Your task to perform on an android device: Show the shopping cart on costco.com. Search for alienware area 51 on costco.com, select the first entry, and add it to the cart. Image 0: 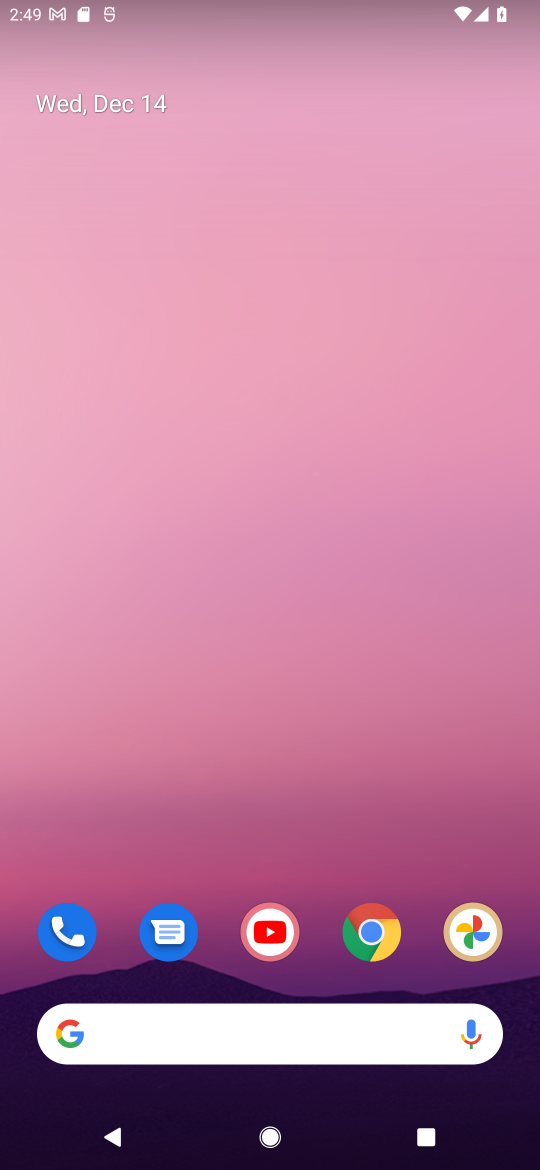
Step 0: click (234, 1052)
Your task to perform on an android device: Show the shopping cart on costco.com. Search for alienware area 51 on costco.com, select the first entry, and add it to the cart. Image 1: 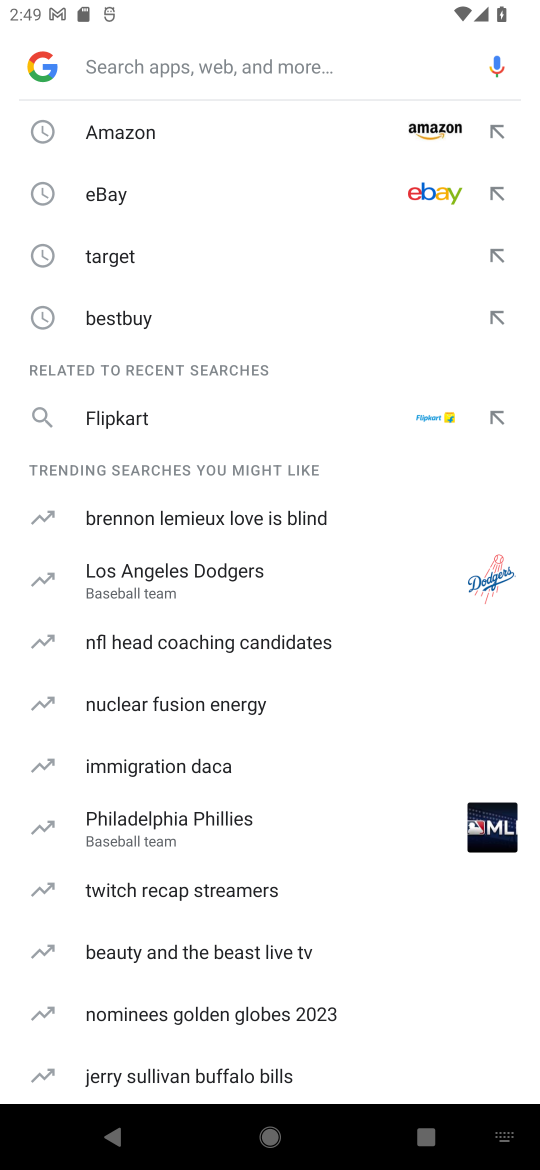
Step 1: type "costco.com"
Your task to perform on an android device: Show the shopping cart on costco.com. Search for alienware area 51 on costco.com, select the first entry, and add it to the cart. Image 2: 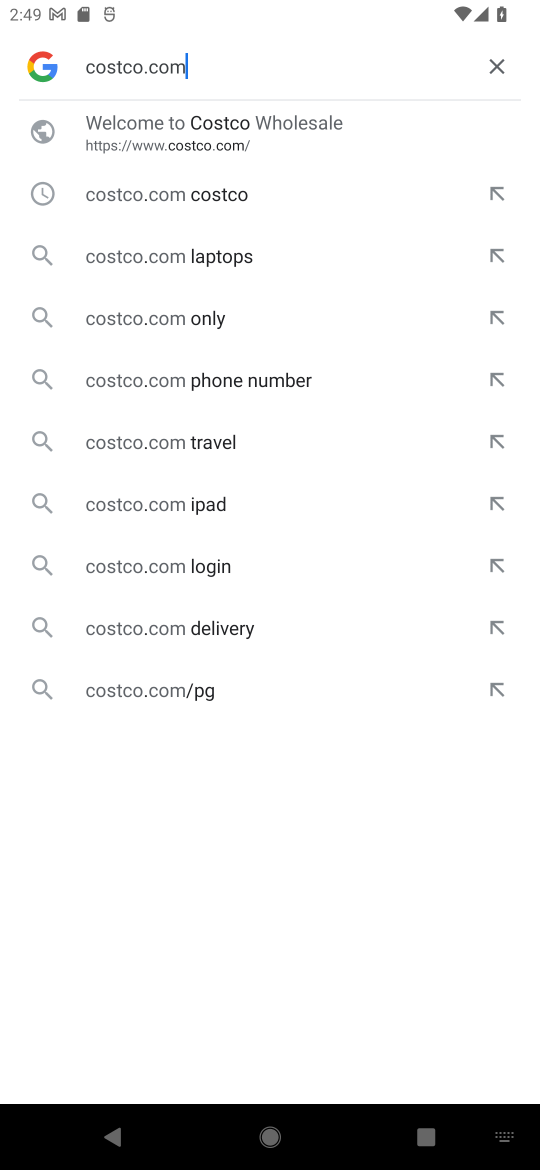
Step 2: click (208, 137)
Your task to perform on an android device: Show the shopping cart on costco.com. Search for alienware area 51 on costco.com, select the first entry, and add it to the cart. Image 3: 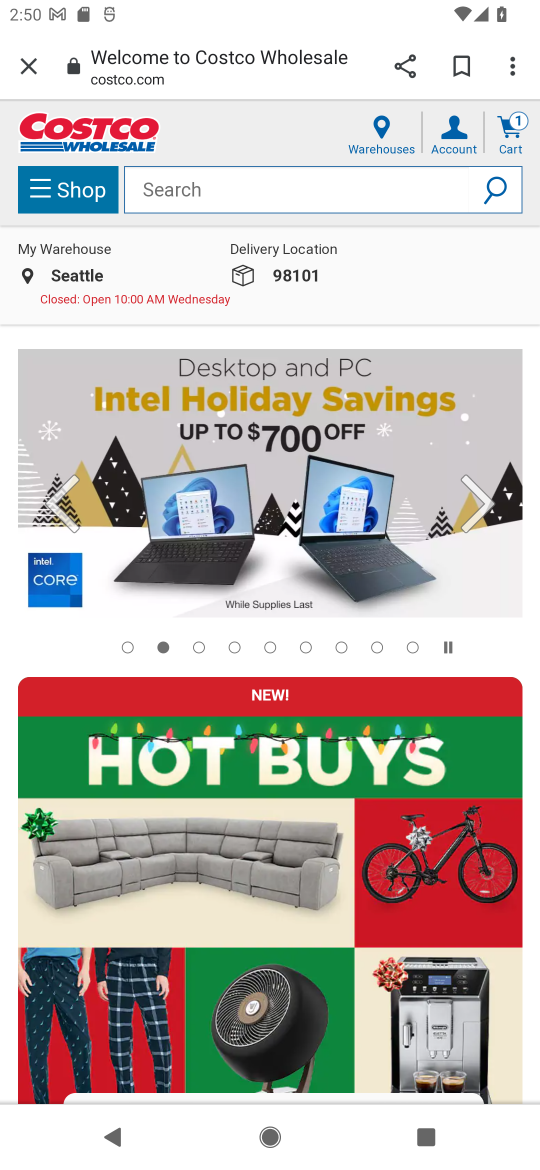
Step 3: click (507, 112)
Your task to perform on an android device: Show the shopping cart on costco.com. Search for alienware area 51 on costco.com, select the first entry, and add it to the cart. Image 4: 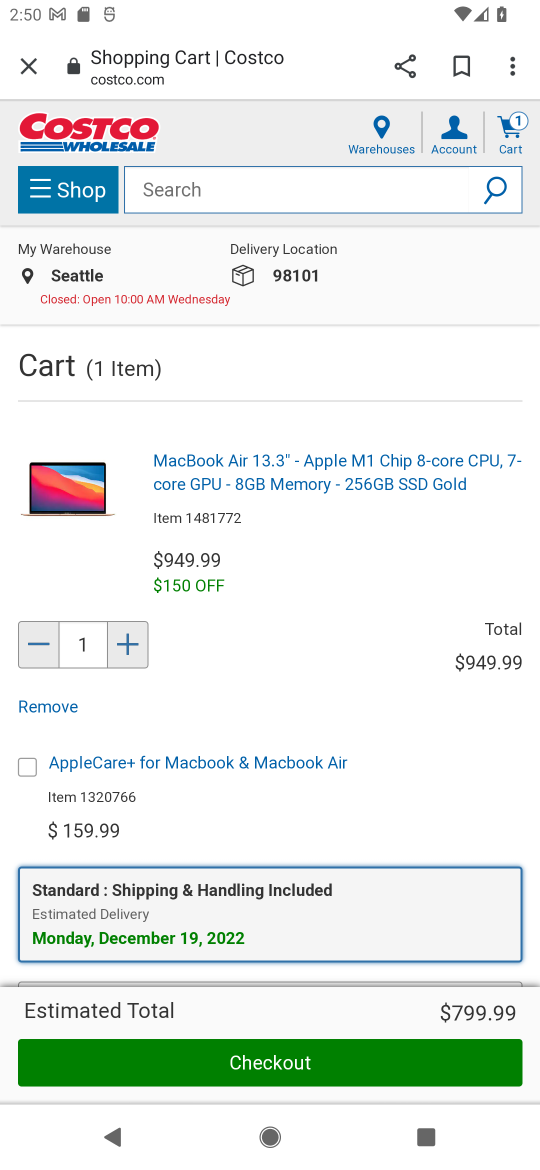
Step 4: click (314, 176)
Your task to perform on an android device: Show the shopping cart on costco.com. Search for alienware area 51 on costco.com, select the first entry, and add it to the cart. Image 5: 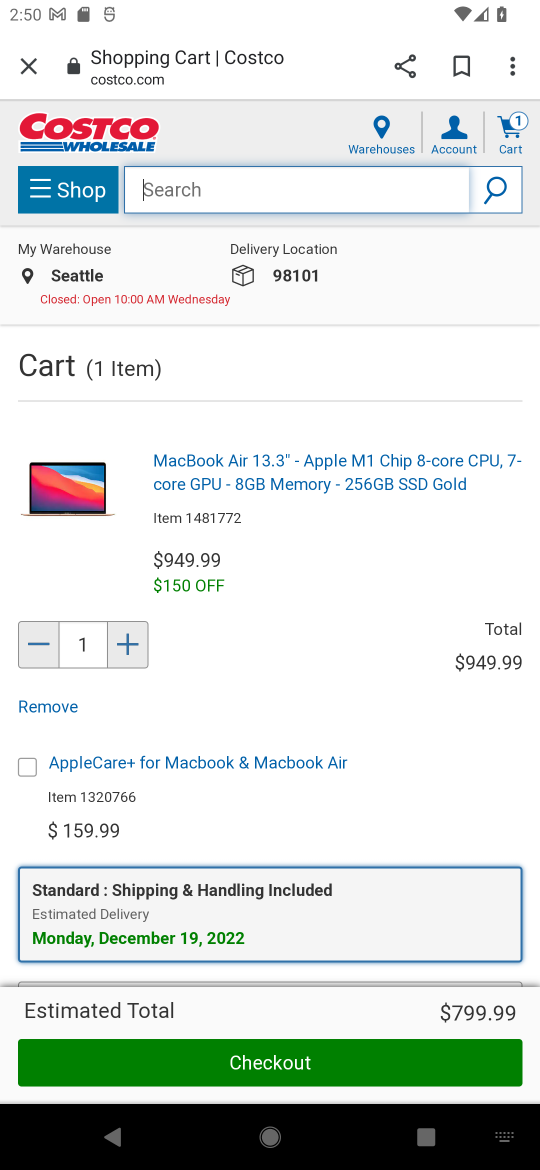
Step 5: type " alienware area 51"
Your task to perform on an android device: Show the shopping cart on costco.com. Search for alienware area 51 on costco.com, select the first entry, and add it to the cart. Image 6: 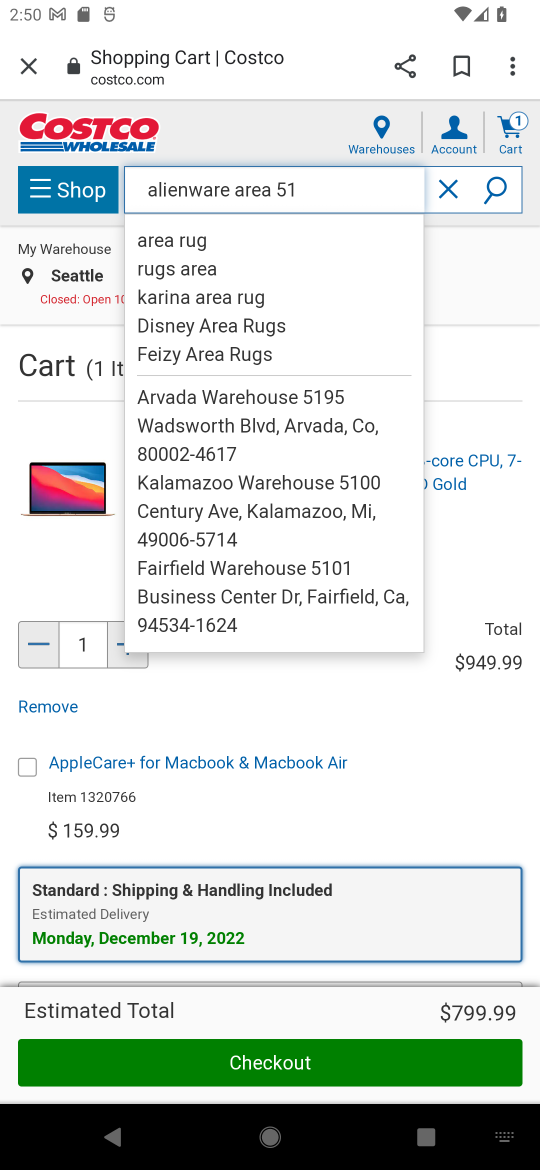
Step 6: click (489, 192)
Your task to perform on an android device: Show the shopping cart on costco.com. Search for alienware area 51 on costco.com, select the first entry, and add it to the cart. Image 7: 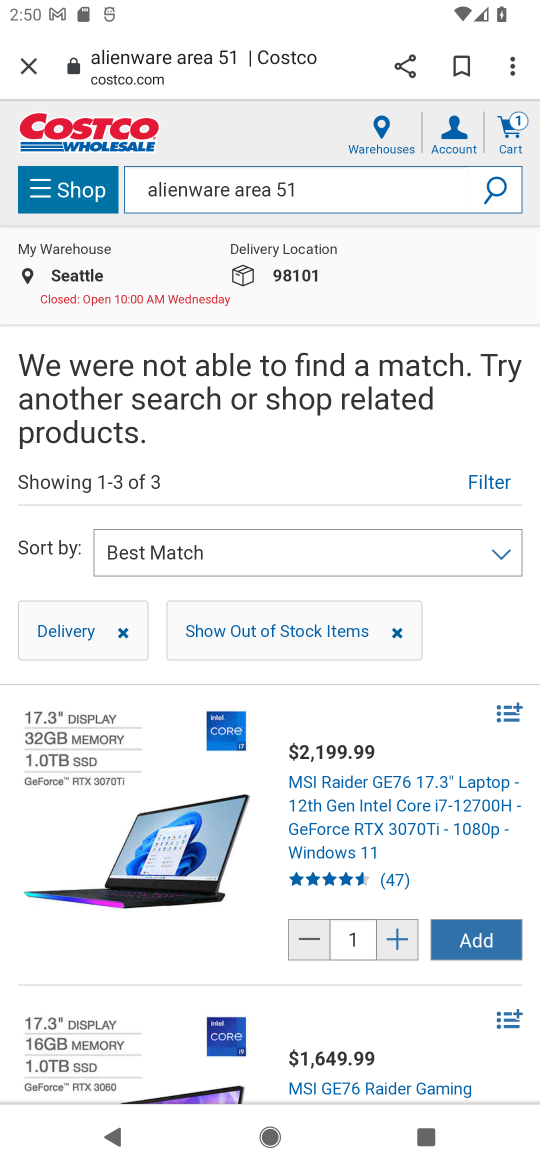
Step 7: click (468, 950)
Your task to perform on an android device: Show the shopping cart on costco.com. Search for alienware area 51 on costco.com, select the first entry, and add it to the cart. Image 8: 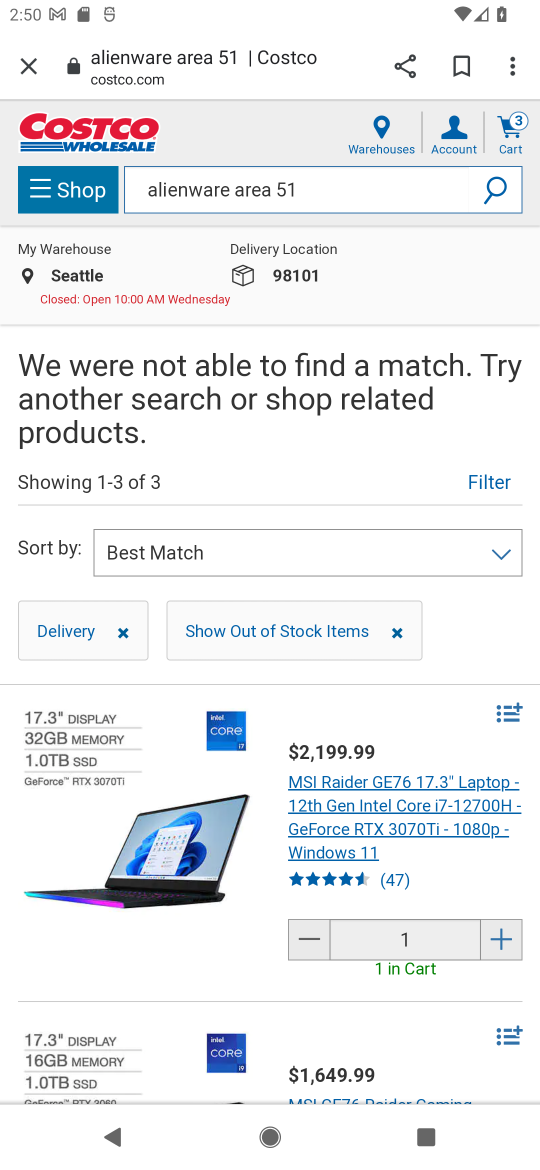
Step 8: click (509, 122)
Your task to perform on an android device: Show the shopping cart on costco.com. Search for alienware area 51 on costco.com, select the first entry, and add it to the cart. Image 9: 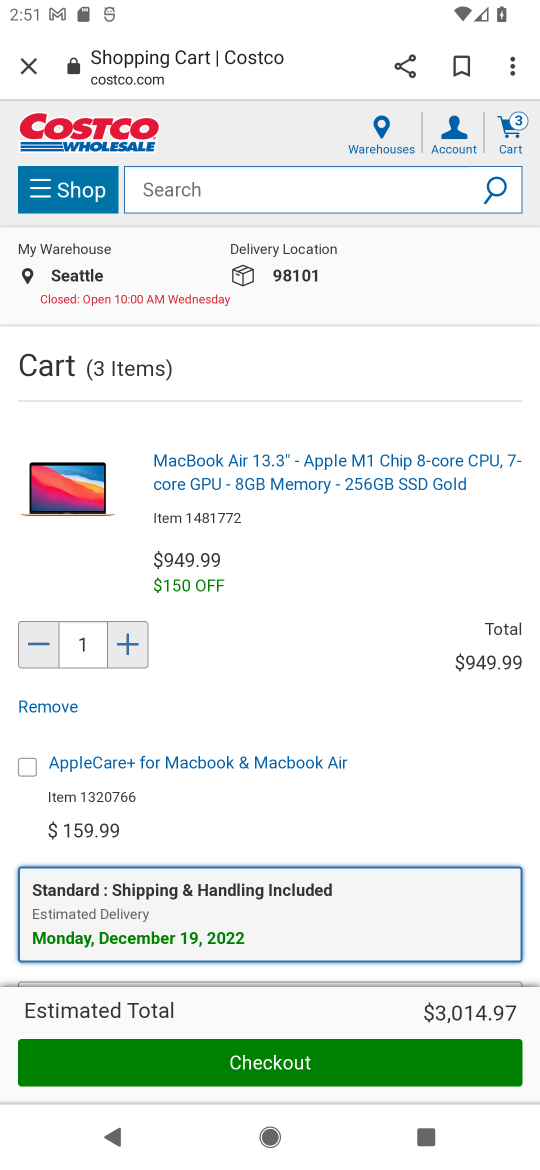
Step 9: task complete